Your task to perform on an android device: Go to Android settings Image 0: 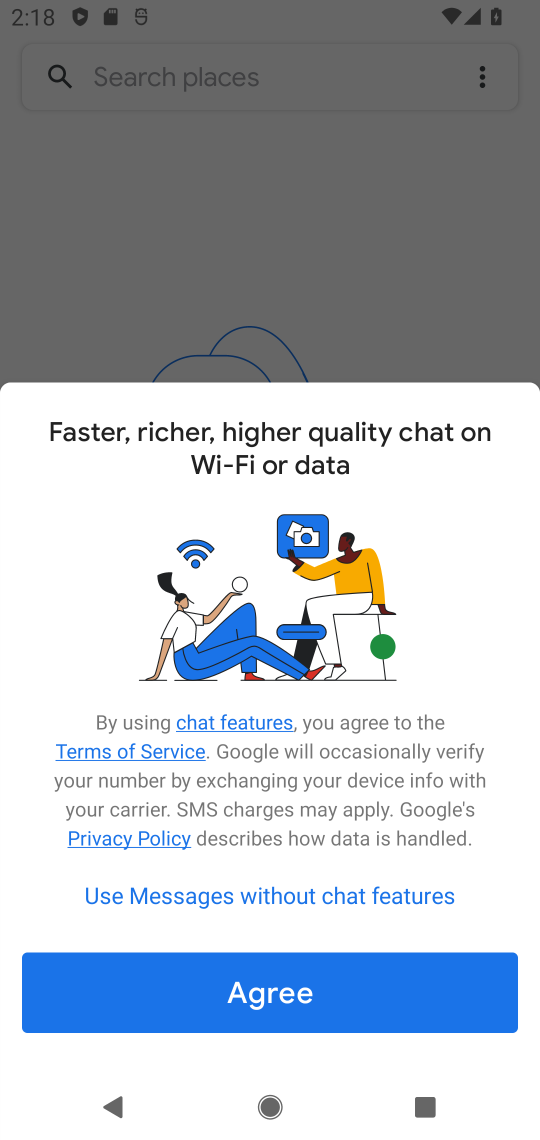
Step 0: press home button
Your task to perform on an android device: Go to Android settings Image 1: 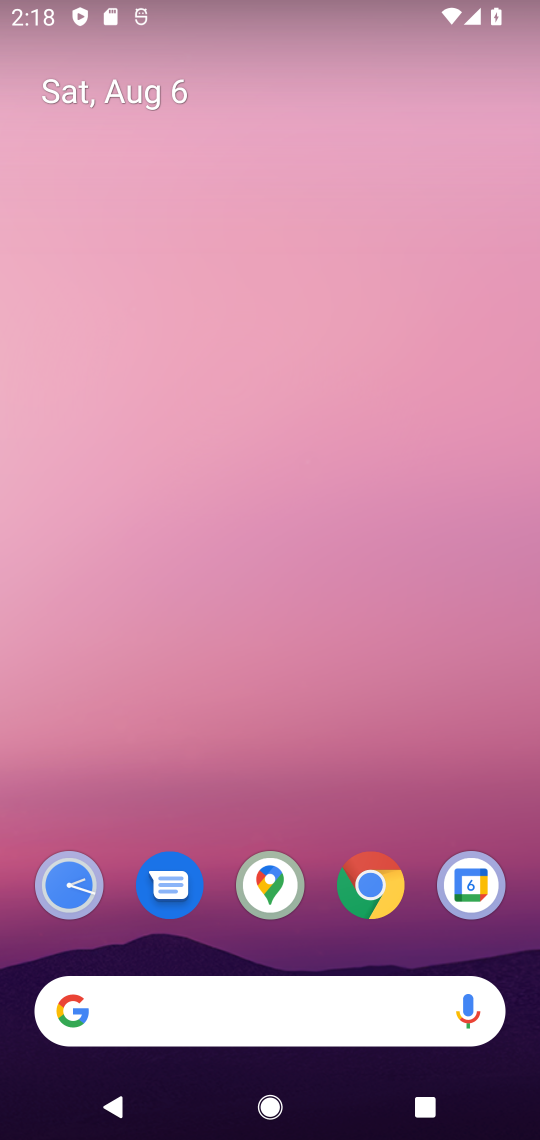
Step 1: drag from (440, 948) to (201, 10)
Your task to perform on an android device: Go to Android settings Image 2: 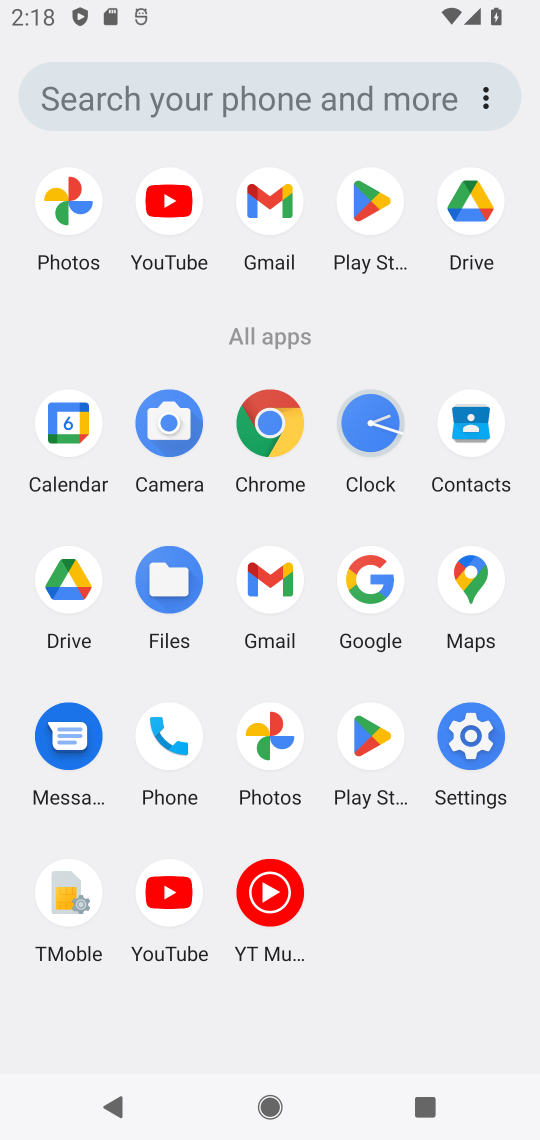
Step 2: click (464, 759)
Your task to perform on an android device: Go to Android settings Image 3: 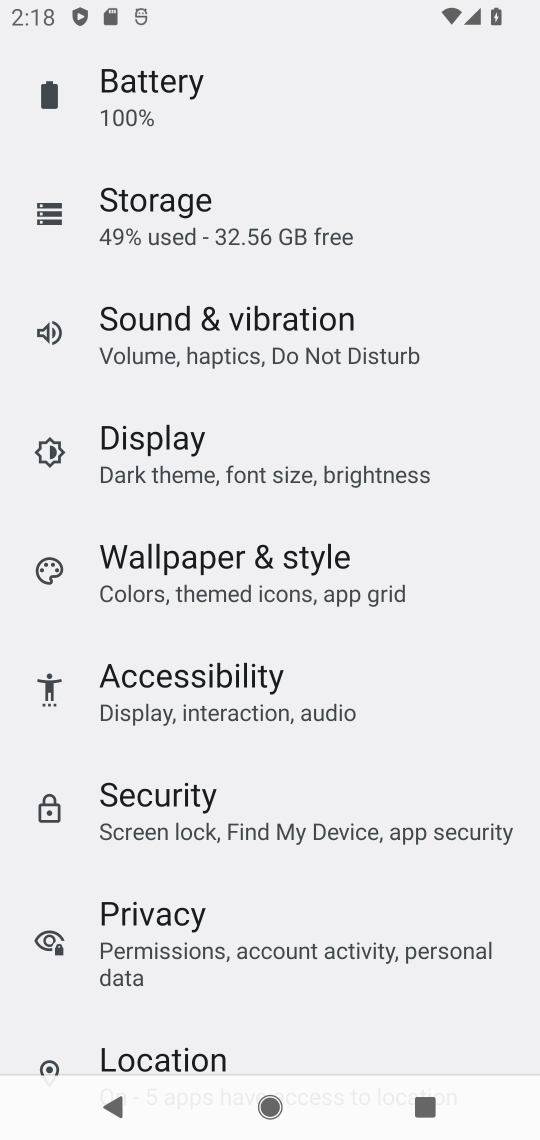
Step 3: task complete